Your task to perform on an android device: Go to ESPN.com Image 0: 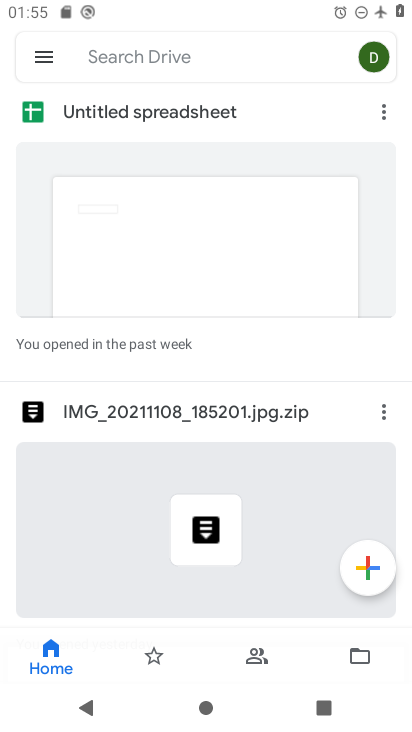
Step 0: press home button
Your task to perform on an android device: Go to ESPN.com Image 1: 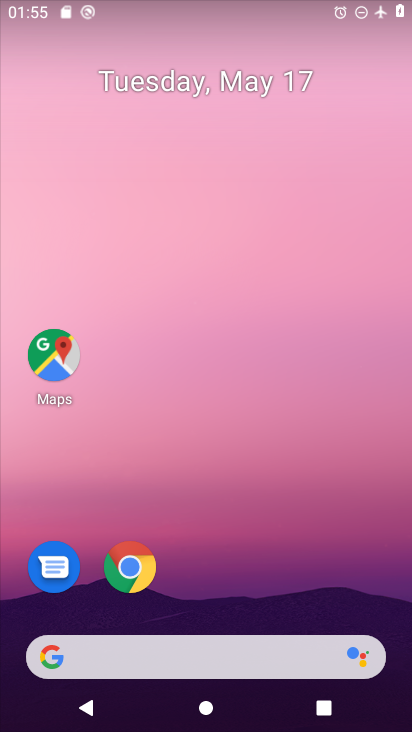
Step 1: drag from (242, 481) to (128, 17)
Your task to perform on an android device: Go to ESPN.com Image 2: 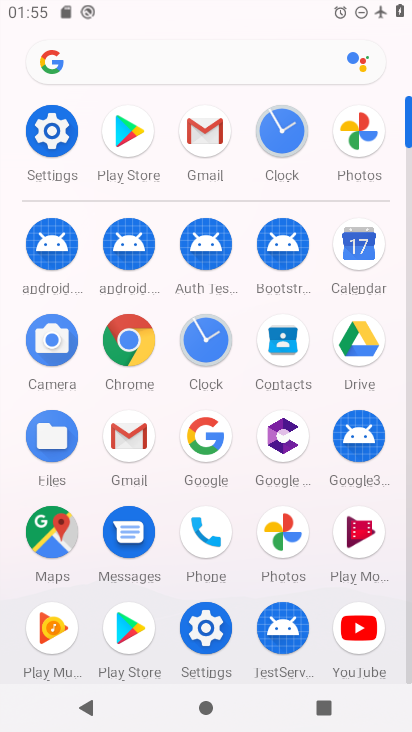
Step 2: click (130, 340)
Your task to perform on an android device: Go to ESPN.com Image 3: 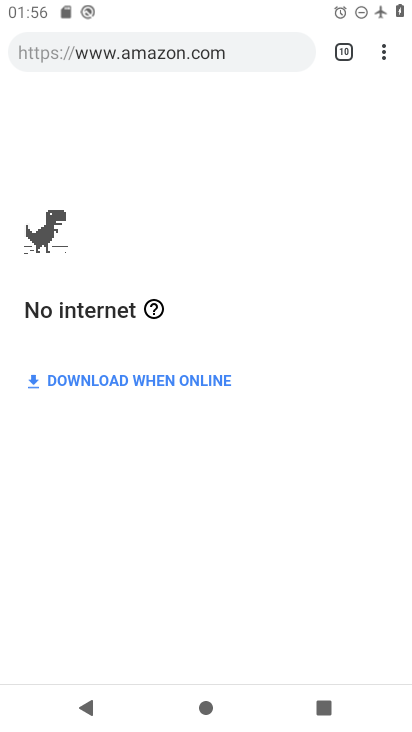
Step 3: task complete